Your task to perform on an android device: turn on location history Image 0: 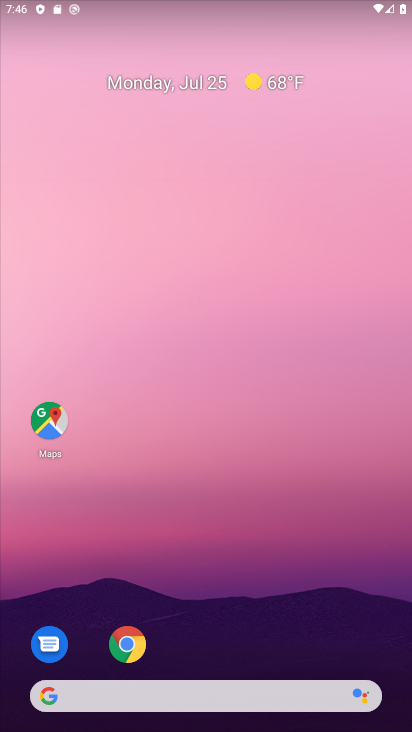
Step 0: drag from (269, 631) to (196, 124)
Your task to perform on an android device: turn on location history Image 1: 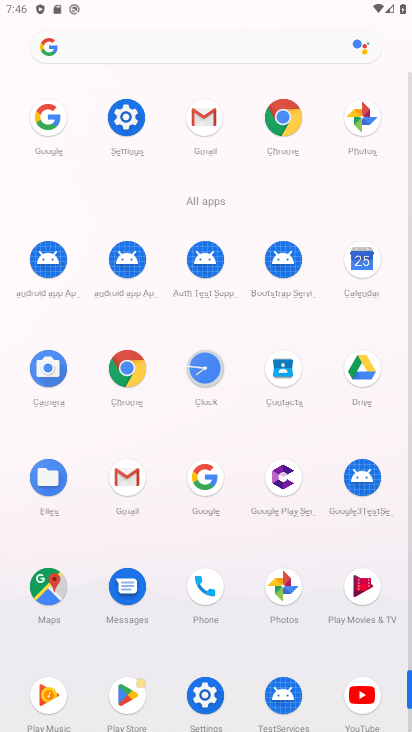
Step 1: click (135, 126)
Your task to perform on an android device: turn on location history Image 2: 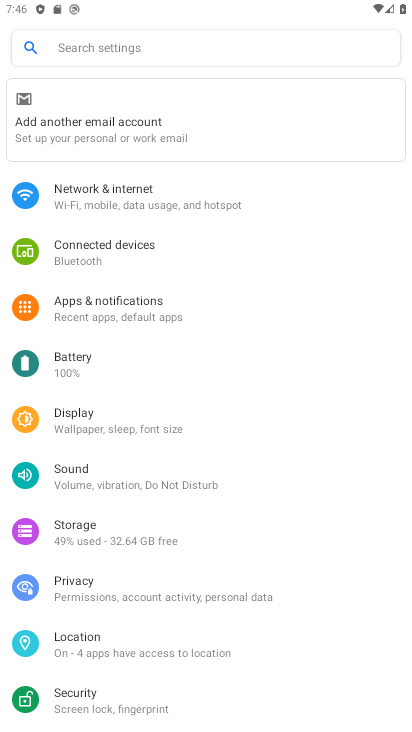
Step 2: click (91, 642)
Your task to perform on an android device: turn on location history Image 3: 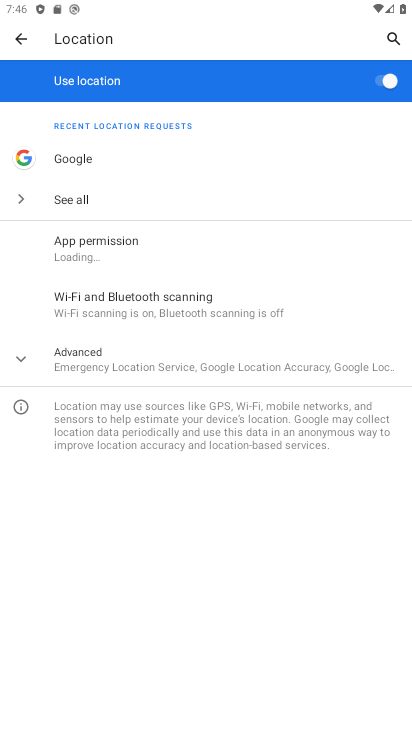
Step 3: click (90, 357)
Your task to perform on an android device: turn on location history Image 4: 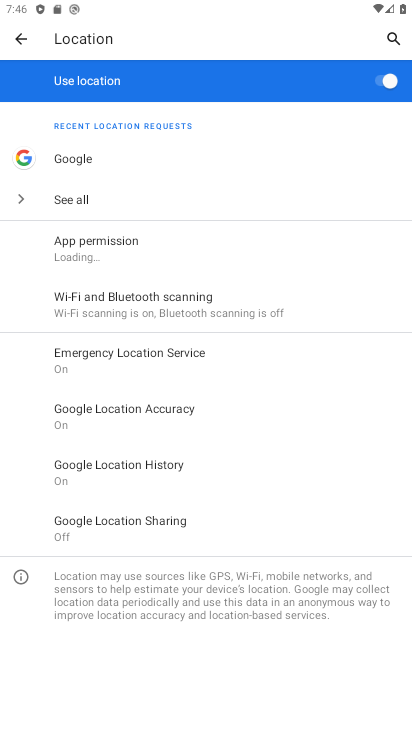
Step 4: click (157, 455)
Your task to perform on an android device: turn on location history Image 5: 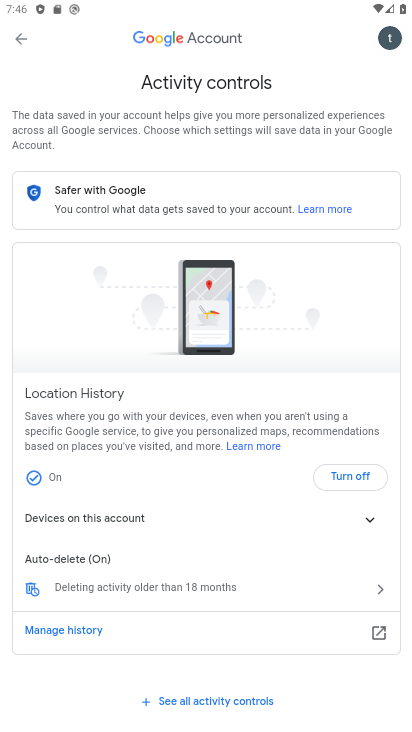
Step 5: task complete